Your task to perform on an android device: open a new tab in the chrome app Image 0: 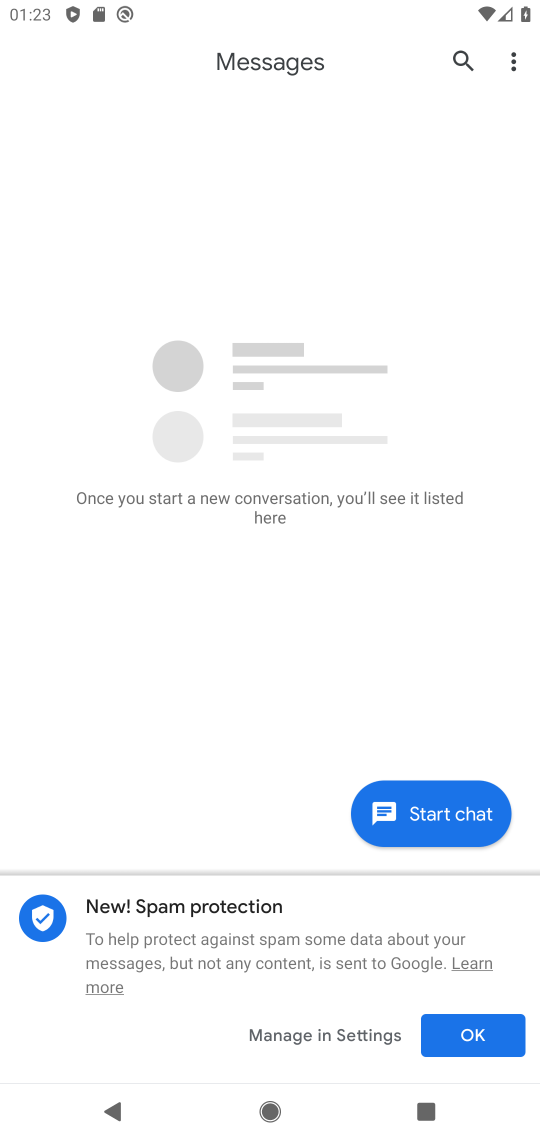
Step 0: press home button
Your task to perform on an android device: open a new tab in the chrome app Image 1: 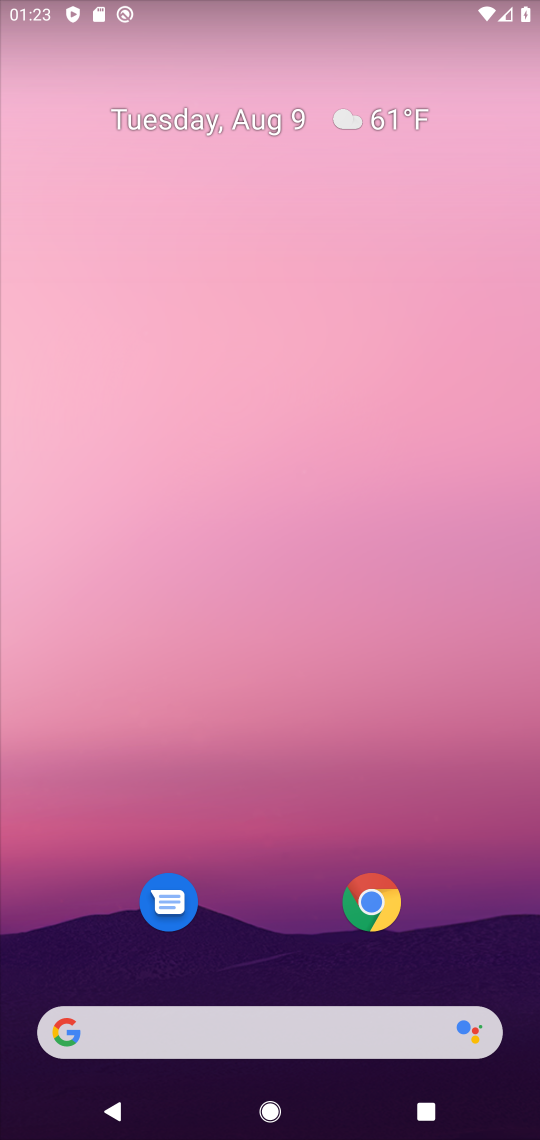
Step 1: click (365, 914)
Your task to perform on an android device: open a new tab in the chrome app Image 2: 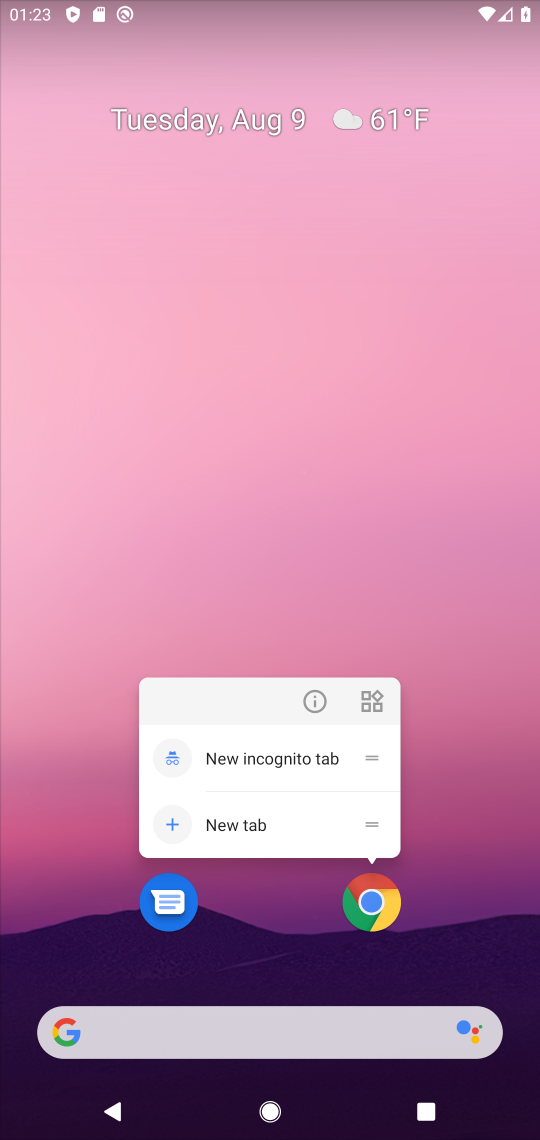
Step 2: click (370, 899)
Your task to perform on an android device: open a new tab in the chrome app Image 3: 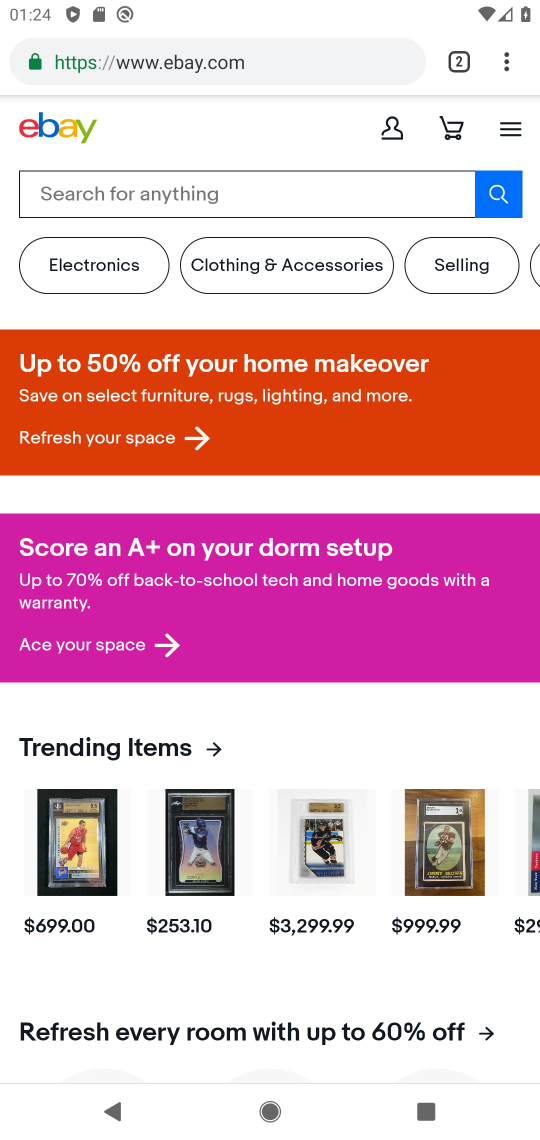
Step 3: click (504, 56)
Your task to perform on an android device: open a new tab in the chrome app Image 4: 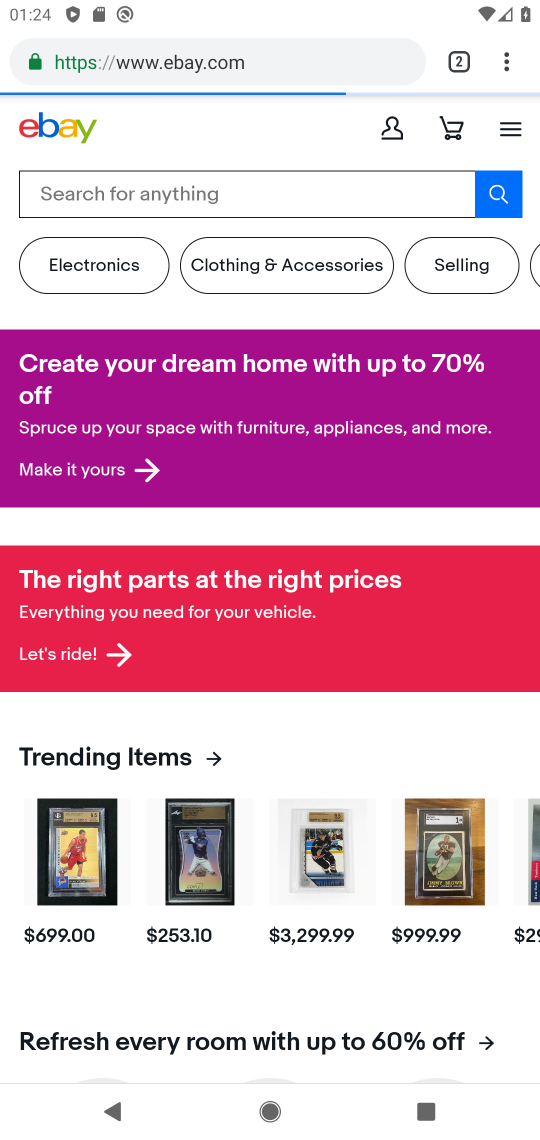
Step 4: click (499, 65)
Your task to perform on an android device: open a new tab in the chrome app Image 5: 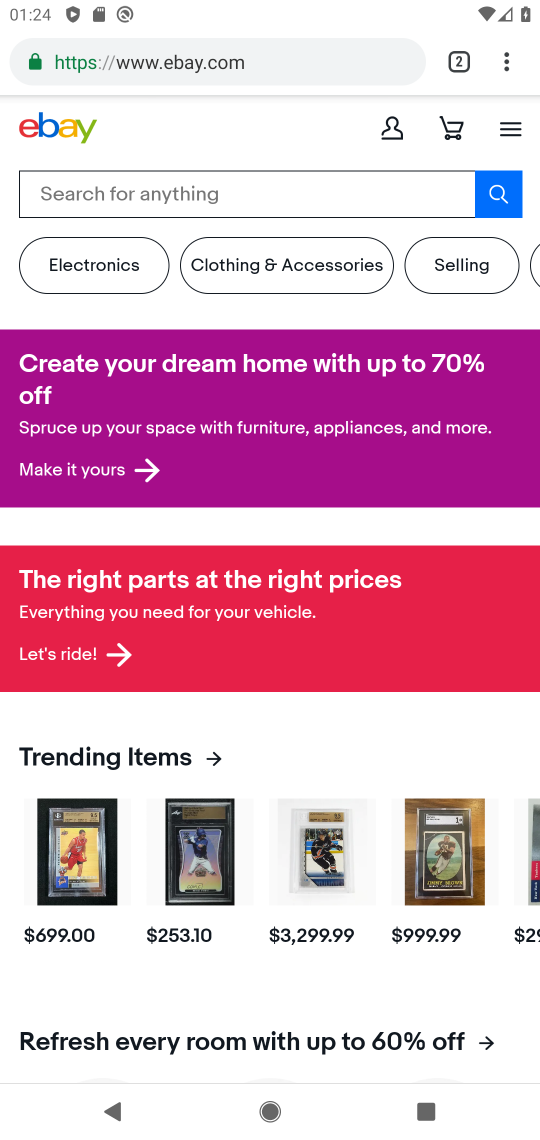
Step 5: click (499, 63)
Your task to perform on an android device: open a new tab in the chrome app Image 6: 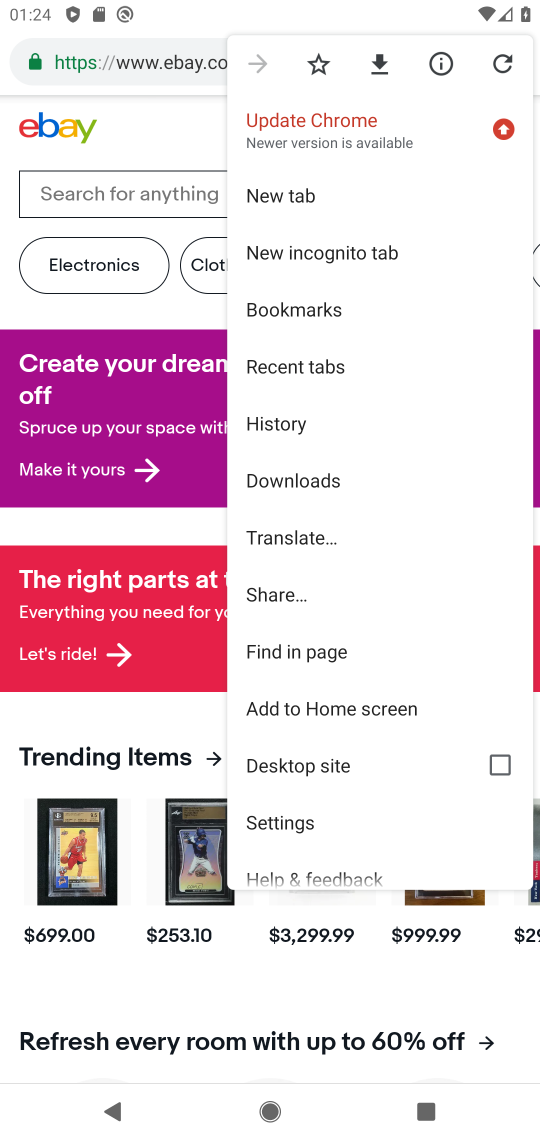
Step 6: click (295, 190)
Your task to perform on an android device: open a new tab in the chrome app Image 7: 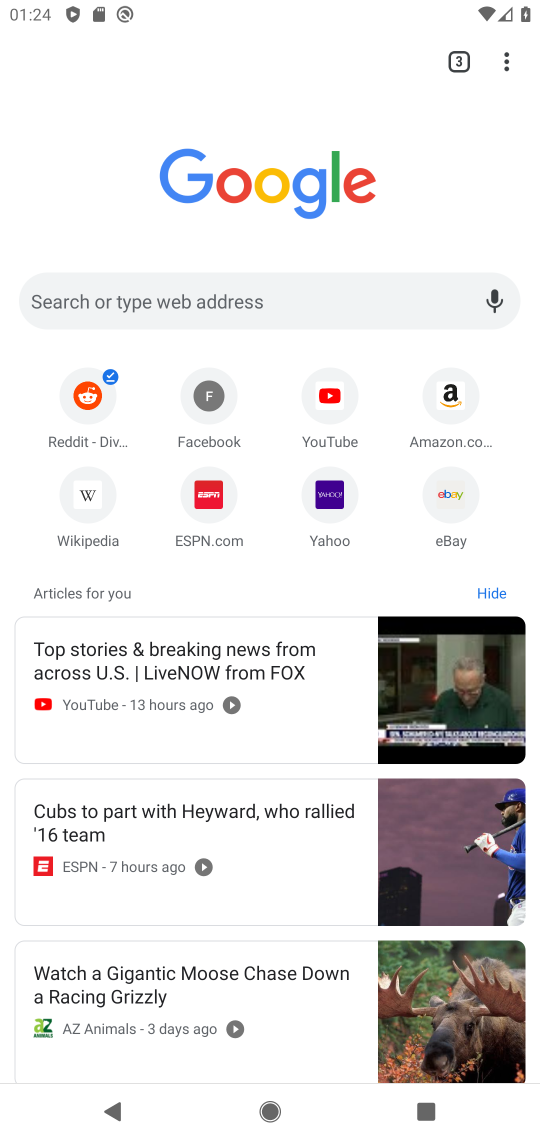
Step 7: task complete